Your task to perform on an android device: Go to location settings Image 0: 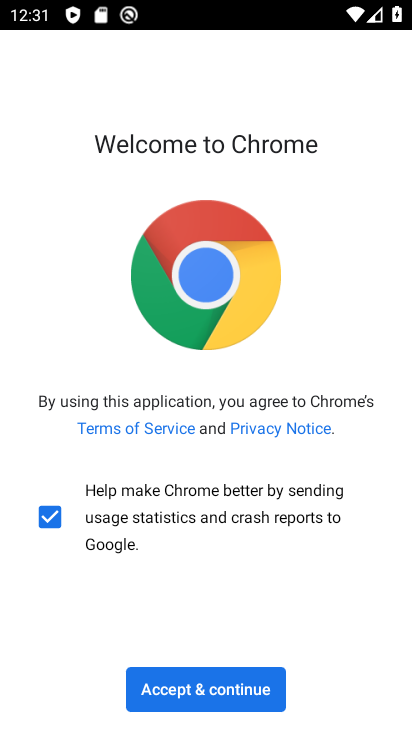
Step 0: press home button
Your task to perform on an android device: Go to location settings Image 1: 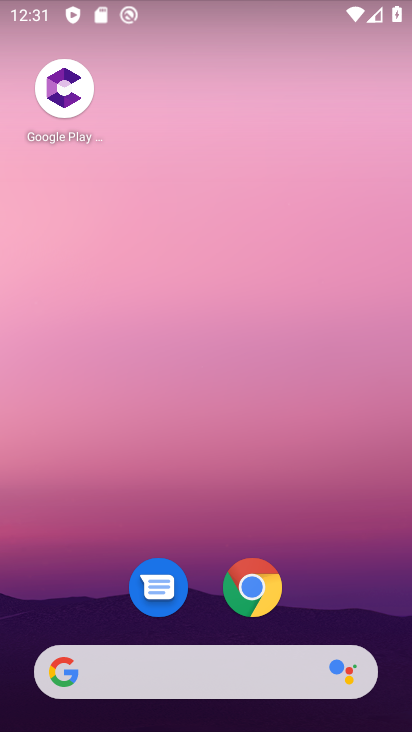
Step 1: drag from (311, 624) to (312, 11)
Your task to perform on an android device: Go to location settings Image 2: 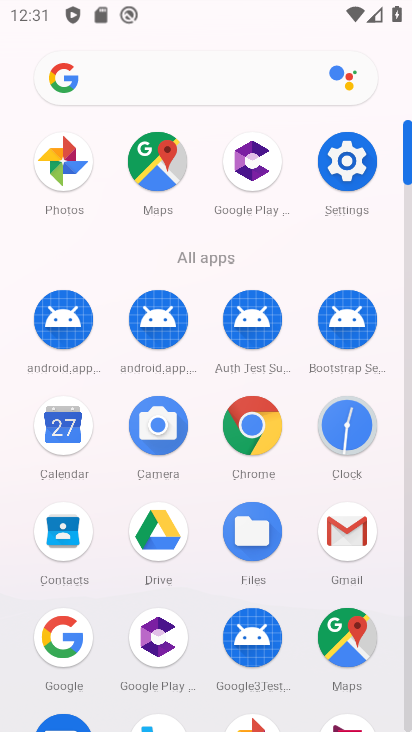
Step 2: click (343, 171)
Your task to perform on an android device: Go to location settings Image 3: 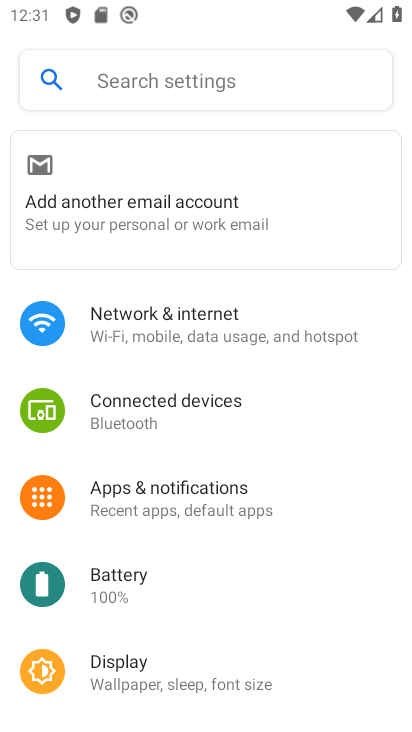
Step 3: drag from (169, 663) to (264, 57)
Your task to perform on an android device: Go to location settings Image 4: 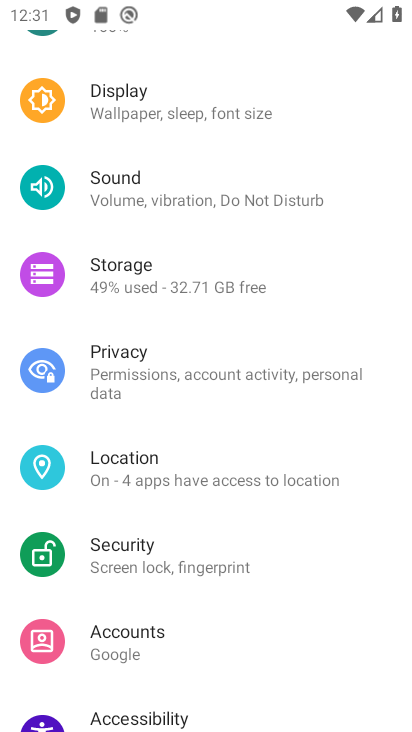
Step 4: click (173, 480)
Your task to perform on an android device: Go to location settings Image 5: 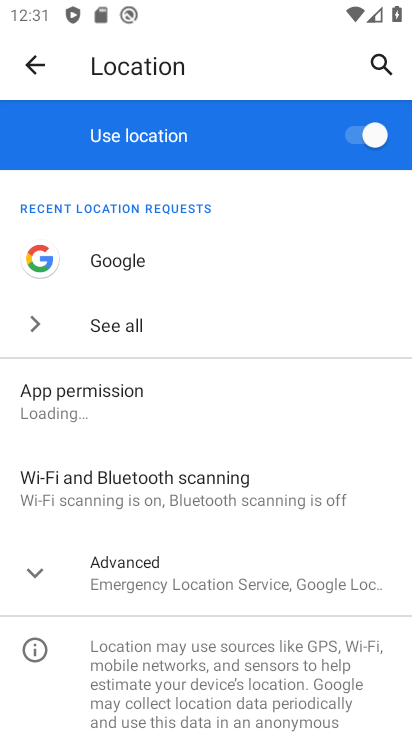
Step 5: task complete